Your task to perform on an android device: delete location history Image 0: 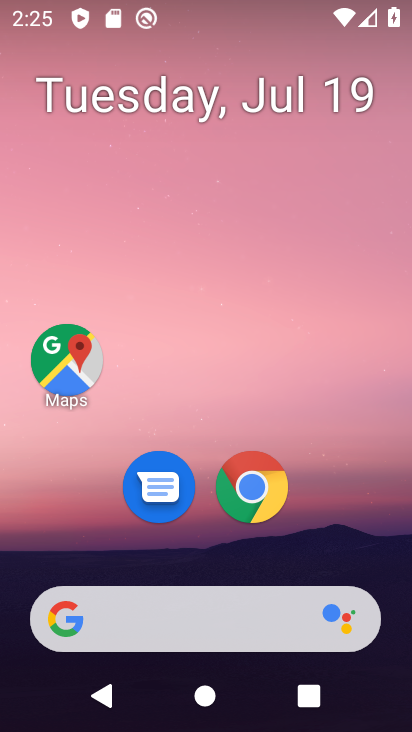
Step 0: click (74, 375)
Your task to perform on an android device: delete location history Image 1: 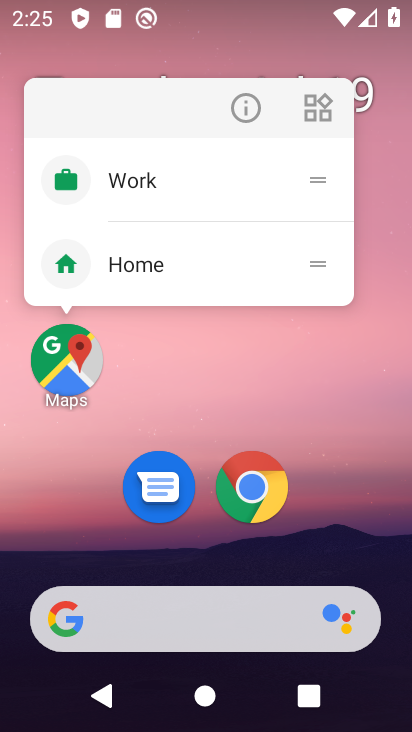
Step 1: click (63, 353)
Your task to perform on an android device: delete location history Image 2: 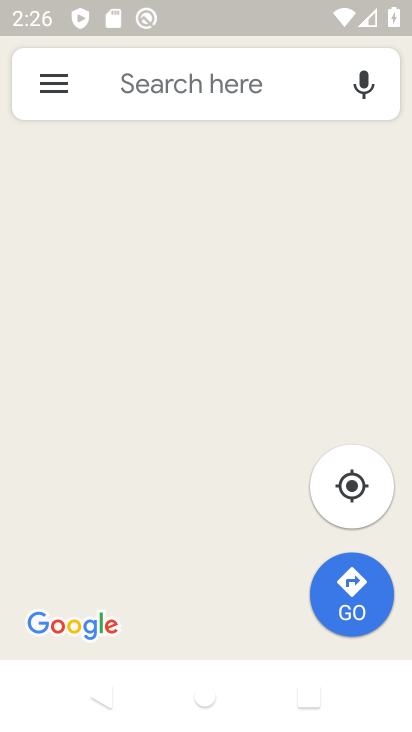
Step 2: click (40, 89)
Your task to perform on an android device: delete location history Image 3: 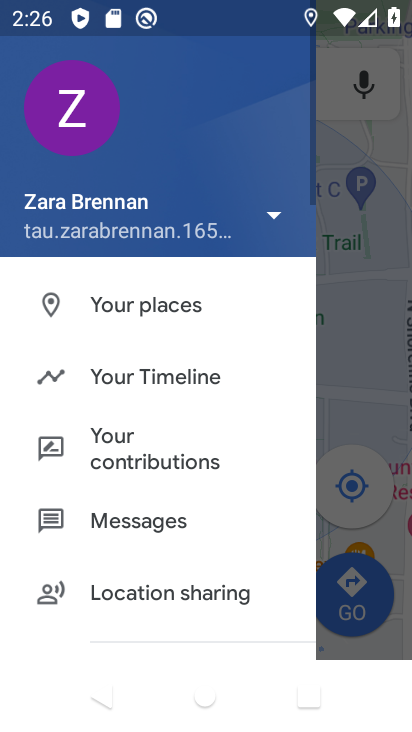
Step 3: click (100, 386)
Your task to perform on an android device: delete location history Image 4: 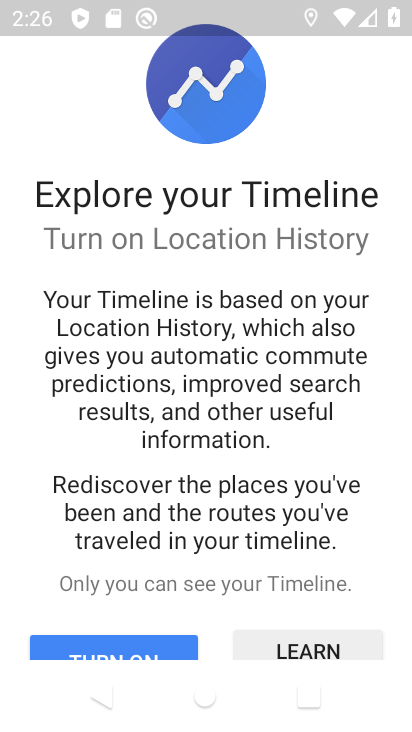
Step 4: drag from (220, 566) to (313, 32)
Your task to perform on an android device: delete location history Image 5: 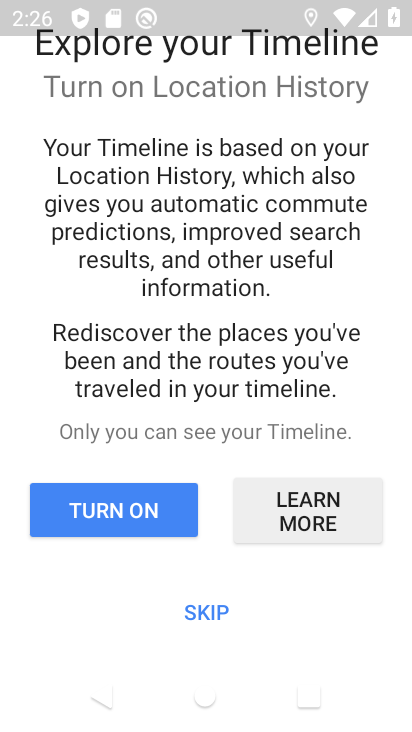
Step 5: click (204, 594)
Your task to perform on an android device: delete location history Image 6: 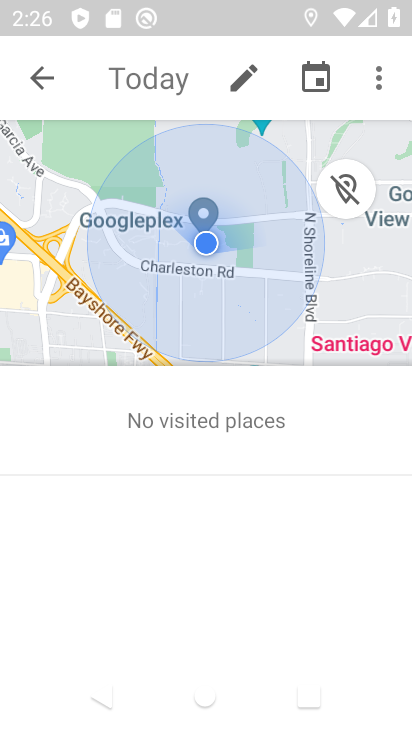
Step 6: click (368, 79)
Your task to perform on an android device: delete location history Image 7: 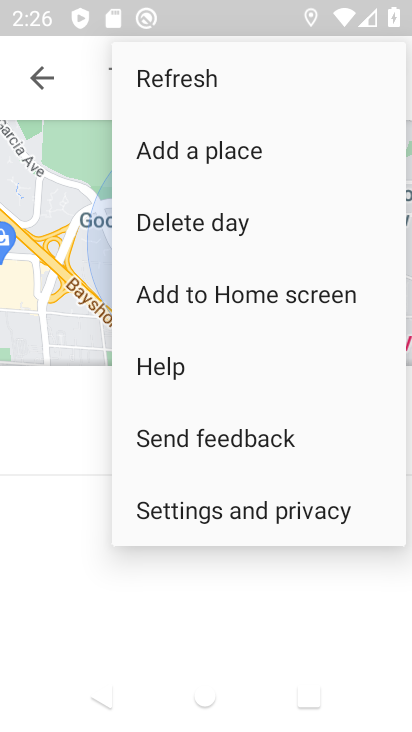
Step 7: click (209, 513)
Your task to perform on an android device: delete location history Image 8: 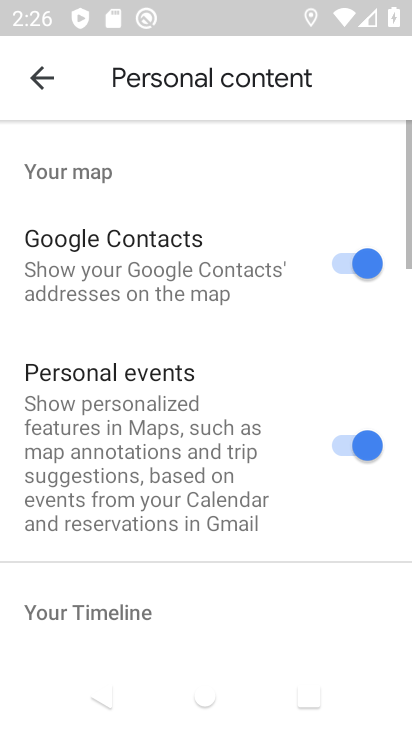
Step 8: drag from (146, 611) to (225, 93)
Your task to perform on an android device: delete location history Image 9: 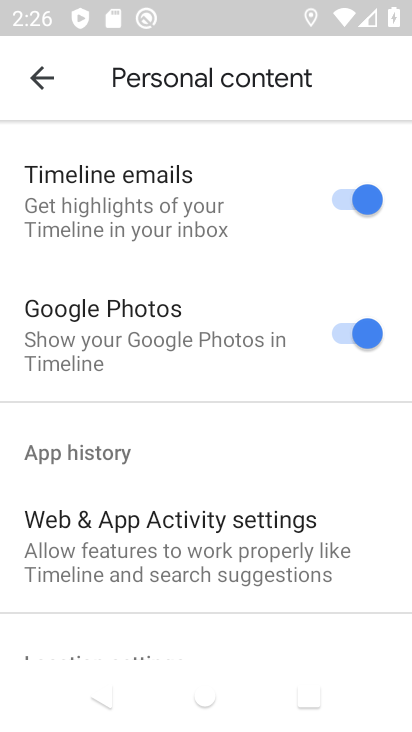
Step 9: drag from (163, 571) to (255, 50)
Your task to perform on an android device: delete location history Image 10: 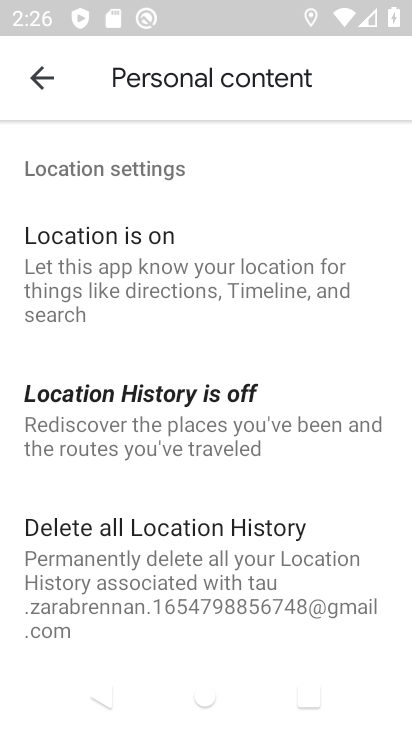
Step 10: drag from (156, 579) to (253, 284)
Your task to perform on an android device: delete location history Image 11: 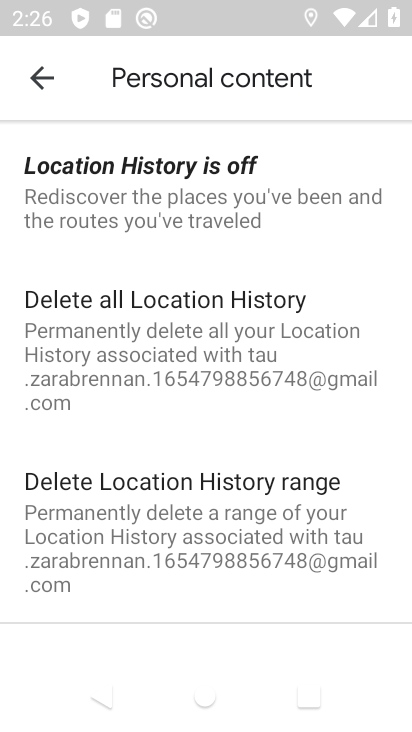
Step 11: click (227, 342)
Your task to perform on an android device: delete location history Image 12: 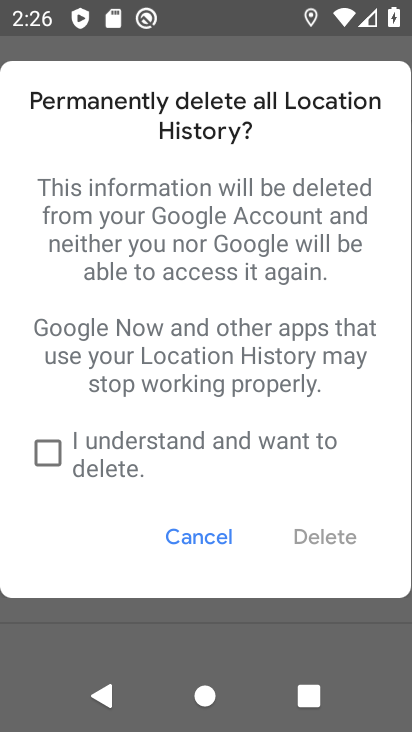
Step 12: click (60, 464)
Your task to perform on an android device: delete location history Image 13: 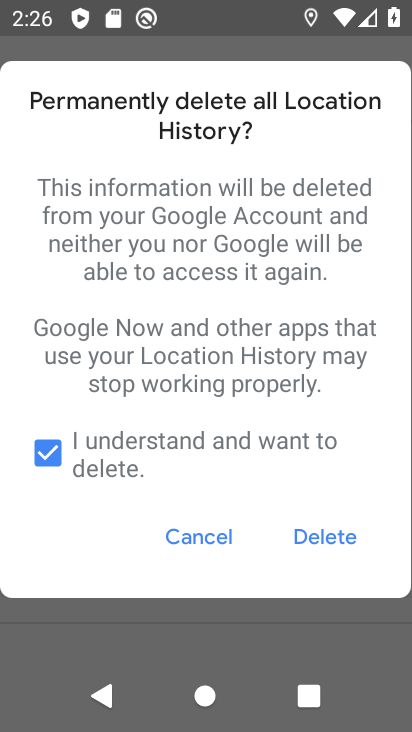
Step 13: click (318, 528)
Your task to perform on an android device: delete location history Image 14: 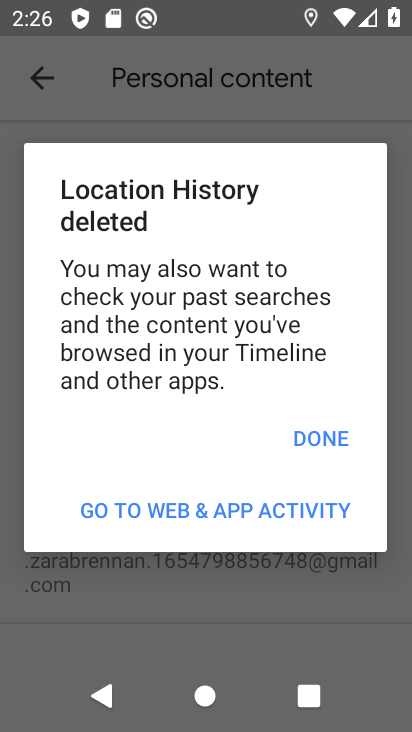
Step 14: click (299, 447)
Your task to perform on an android device: delete location history Image 15: 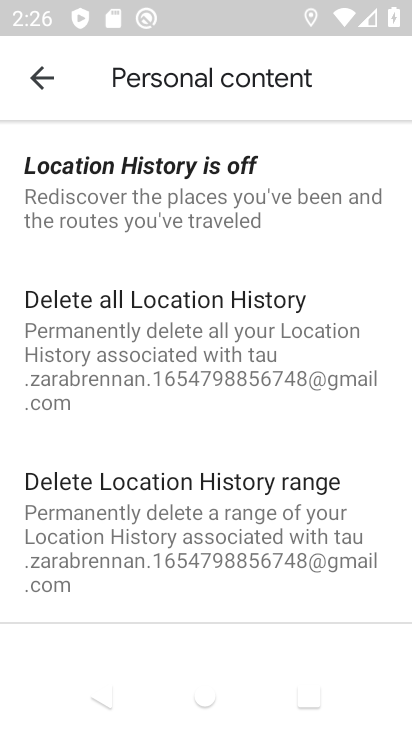
Step 15: task complete